Your task to perform on an android device: check android version Image 0: 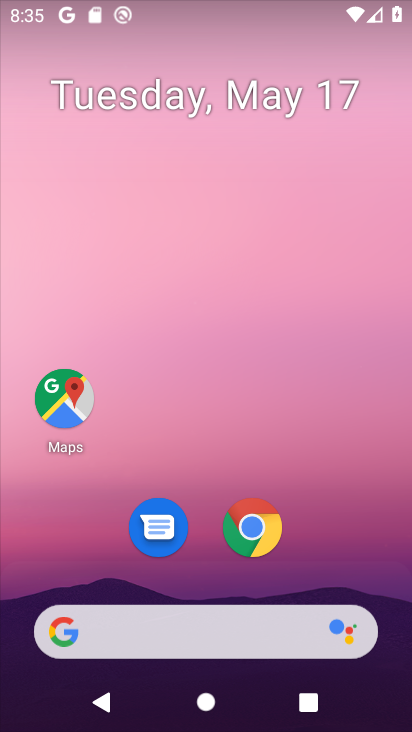
Step 0: drag from (220, 593) to (287, 19)
Your task to perform on an android device: check android version Image 1: 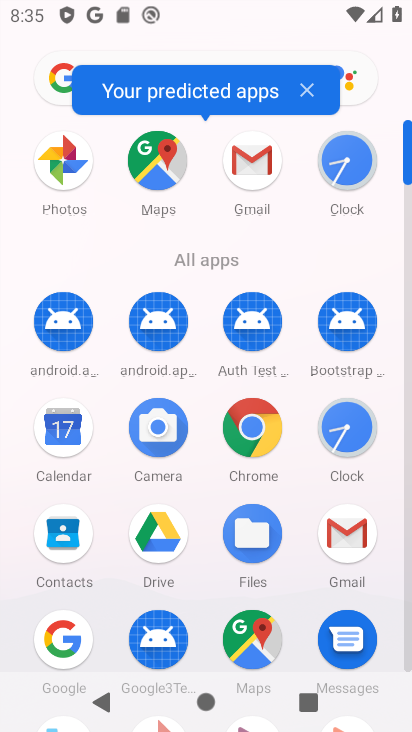
Step 1: drag from (196, 581) to (145, 146)
Your task to perform on an android device: check android version Image 2: 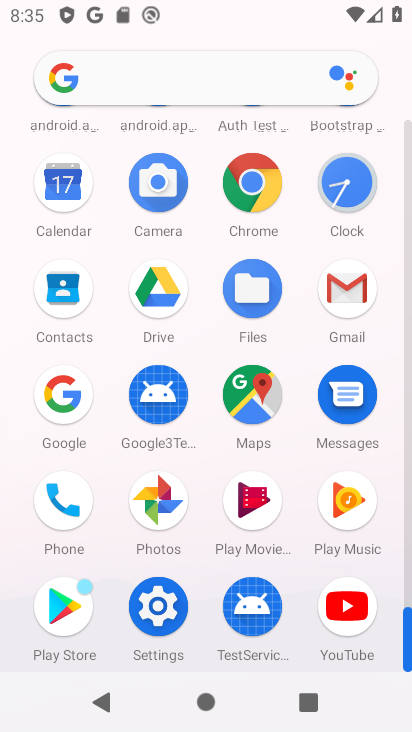
Step 2: click (147, 598)
Your task to perform on an android device: check android version Image 3: 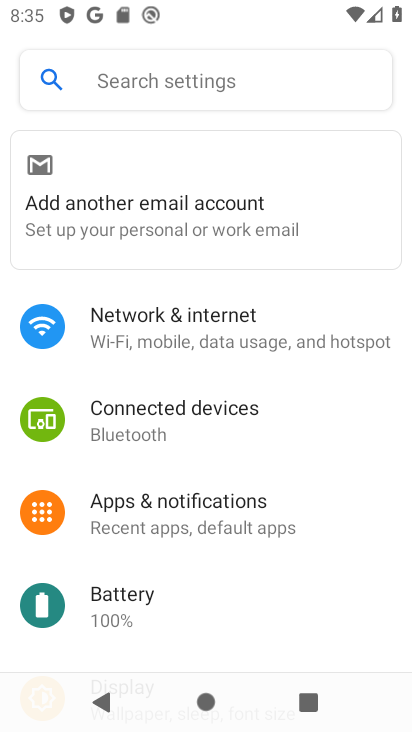
Step 3: drag from (157, 602) to (170, 136)
Your task to perform on an android device: check android version Image 4: 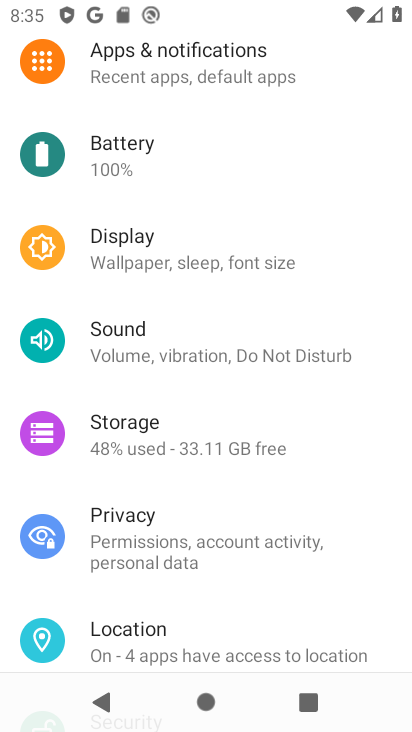
Step 4: drag from (320, 562) to (277, 18)
Your task to perform on an android device: check android version Image 5: 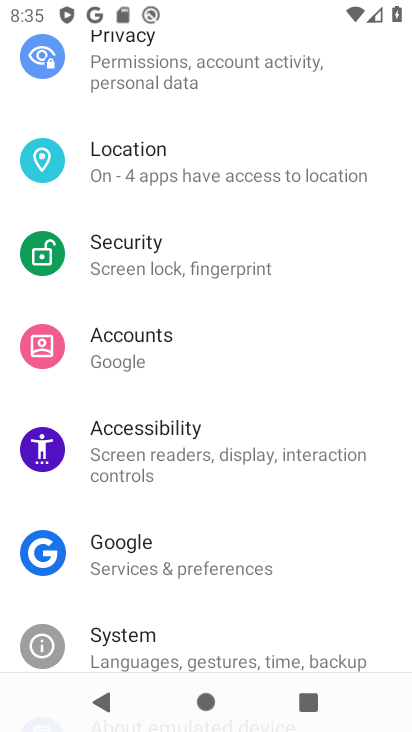
Step 5: drag from (326, 600) to (289, 125)
Your task to perform on an android device: check android version Image 6: 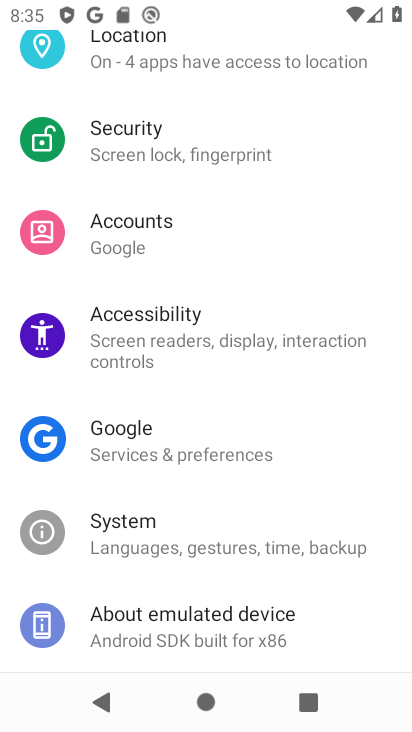
Step 6: click (177, 627)
Your task to perform on an android device: check android version Image 7: 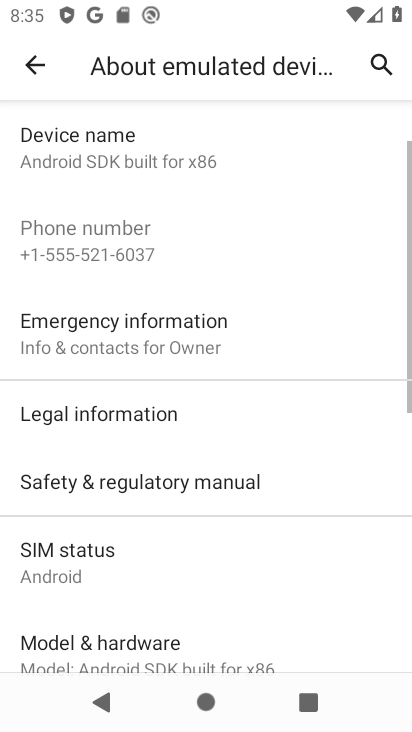
Step 7: drag from (242, 271) to (234, 117)
Your task to perform on an android device: check android version Image 8: 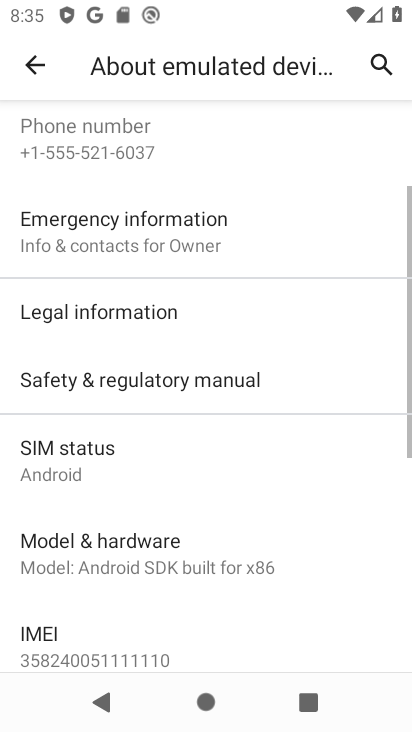
Step 8: drag from (286, 568) to (250, 49)
Your task to perform on an android device: check android version Image 9: 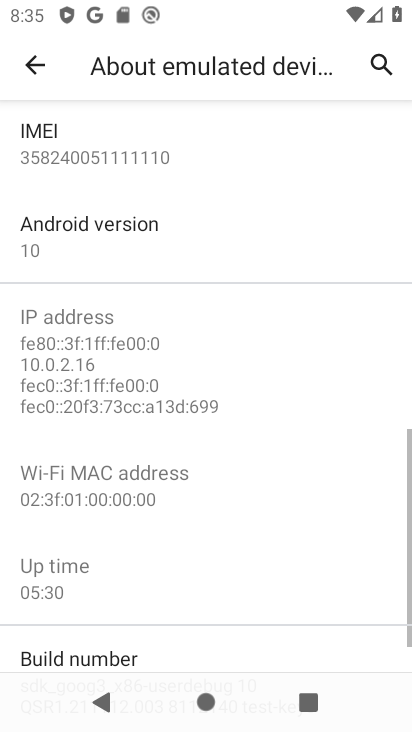
Step 9: click (101, 232)
Your task to perform on an android device: check android version Image 10: 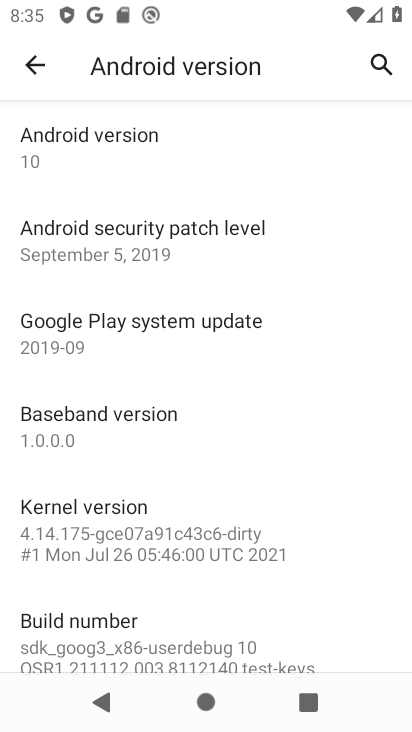
Step 10: task complete